Your task to perform on an android device: Open Amazon Image 0: 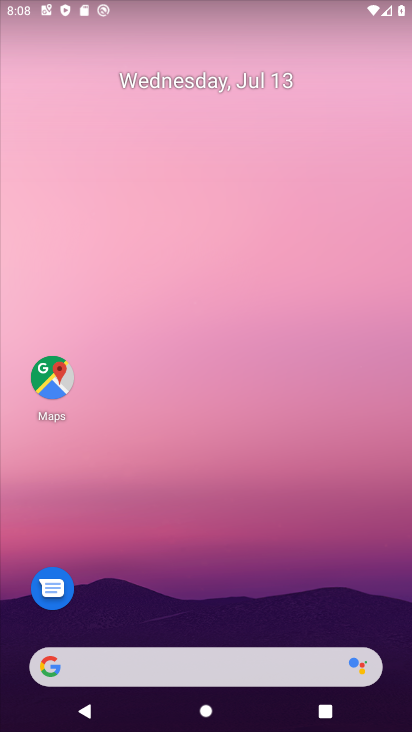
Step 0: drag from (252, 661) to (269, 0)
Your task to perform on an android device: Open Amazon Image 1: 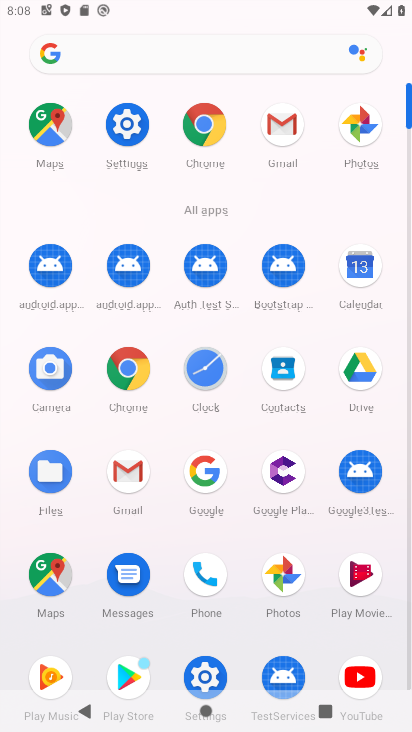
Step 1: click (210, 113)
Your task to perform on an android device: Open Amazon Image 2: 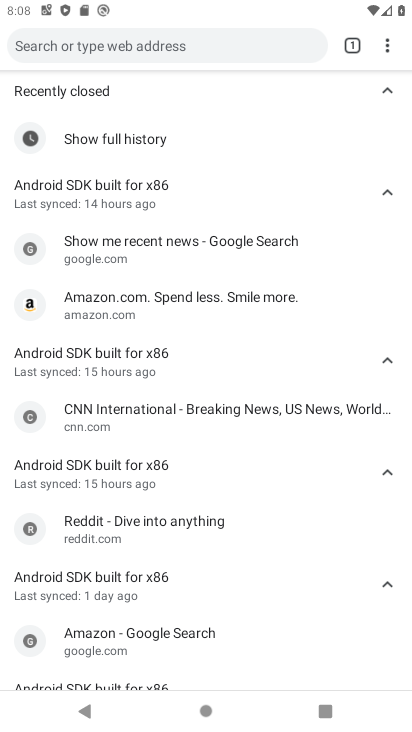
Step 2: click (383, 45)
Your task to perform on an android device: Open Amazon Image 3: 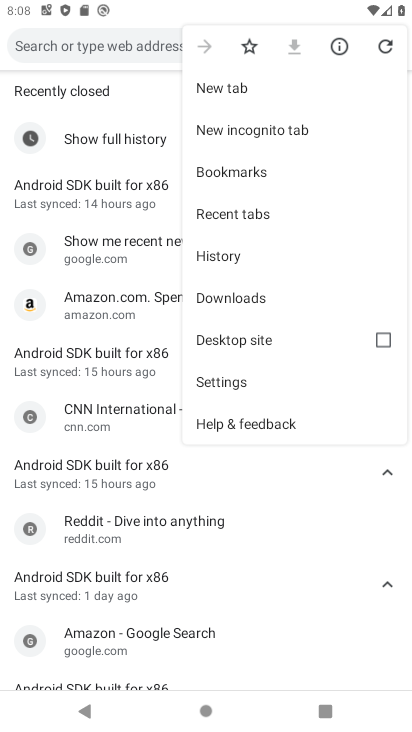
Step 3: click (265, 88)
Your task to perform on an android device: Open Amazon Image 4: 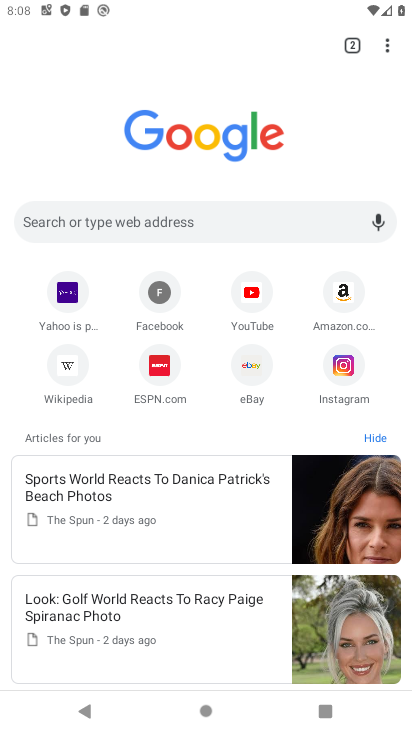
Step 4: click (349, 300)
Your task to perform on an android device: Open Amazon Image 5: 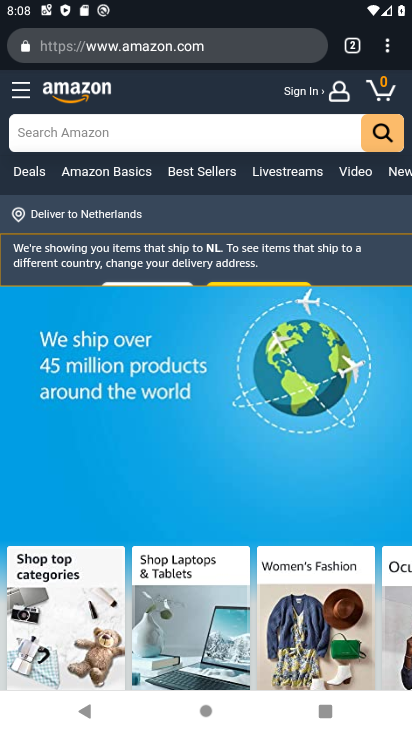
Step 5: task complete